Your task to perform on an android device: check data usage Image 0: 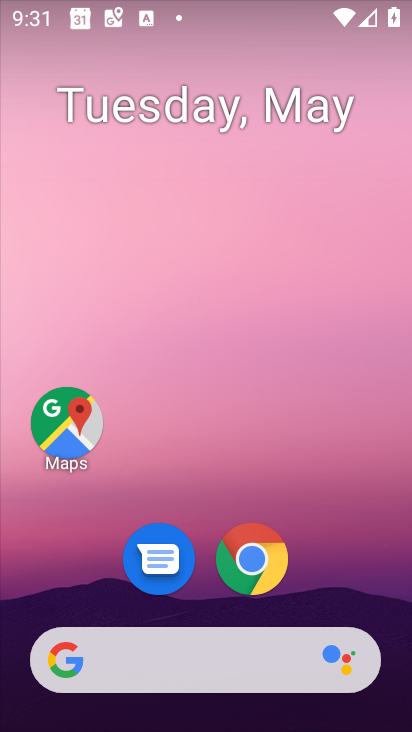
Step 0: drag from (216, 639) to (208, 14)
Your task to perform on an android device: check data usage Image 1: 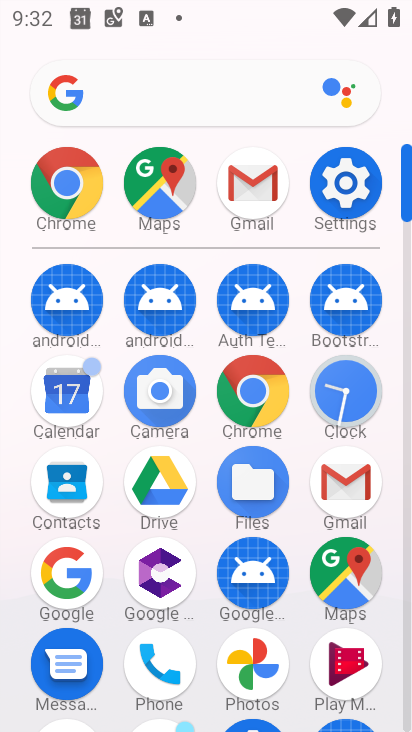
Step 1: click (350, 204)
Your task to perform on an android device: check data usage Image 2: 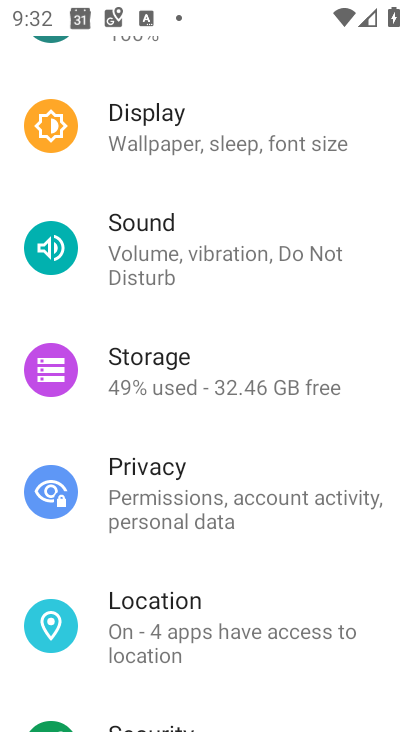
Step 2: drag from (249, 179) to (125, 724)
Your task to perform on an android device: check data usage Image 3: 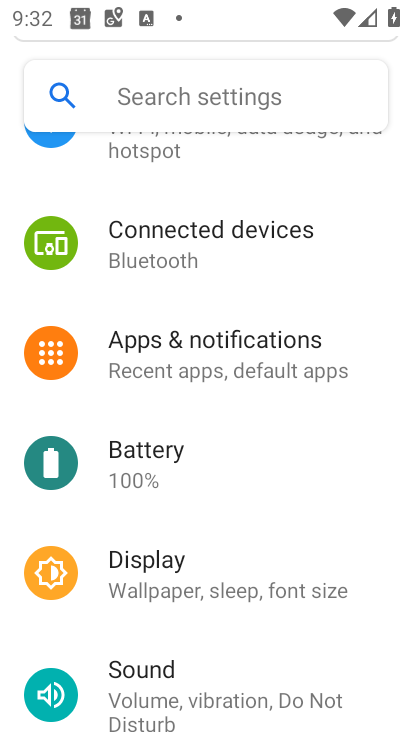
Step 3: click (145, 153)
Your task to perform on an android device: check data usage Image 4: 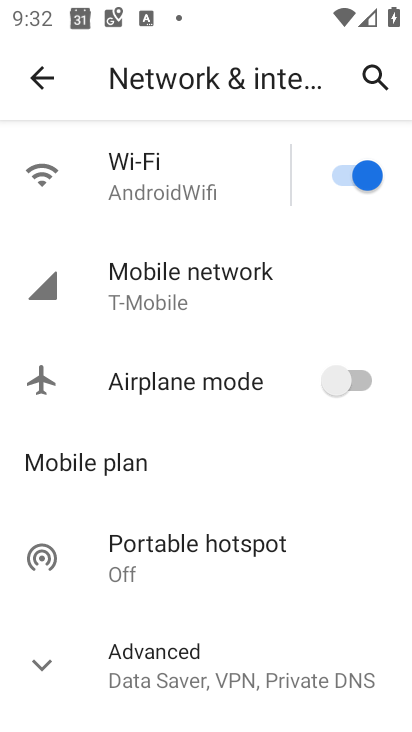
Step 4: click (177, 270)
Your task to perform on an android device: check data usage Image 5: 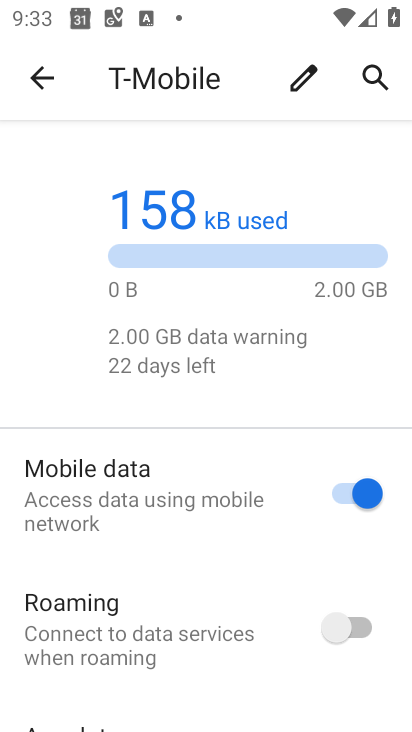
Step 5: task complete